Your task to perform on an android device: Open eBay Image 0: 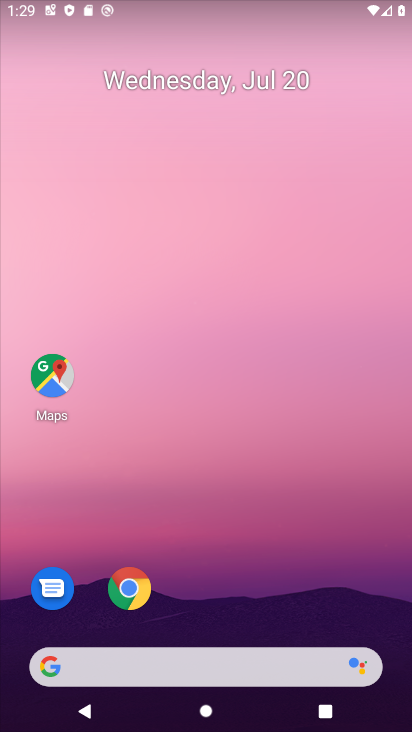
Step 0: drag from (372, 608) to (221, 21)
Your task to perform on an android device: Open eBay Image 1: 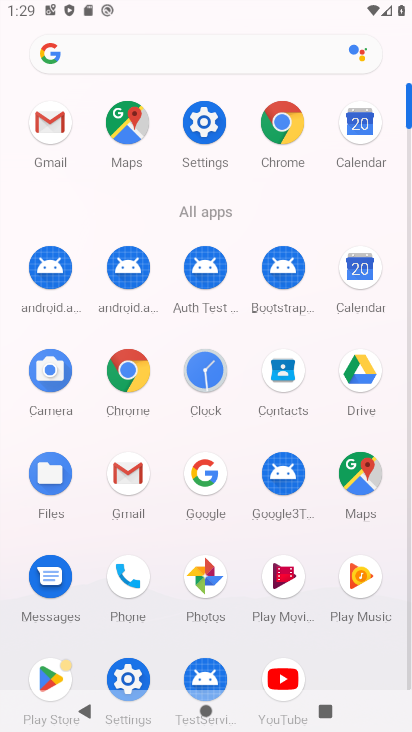
Step 1: click (217, 472)
Your task to perform on an android device: Open eBay Image 2: 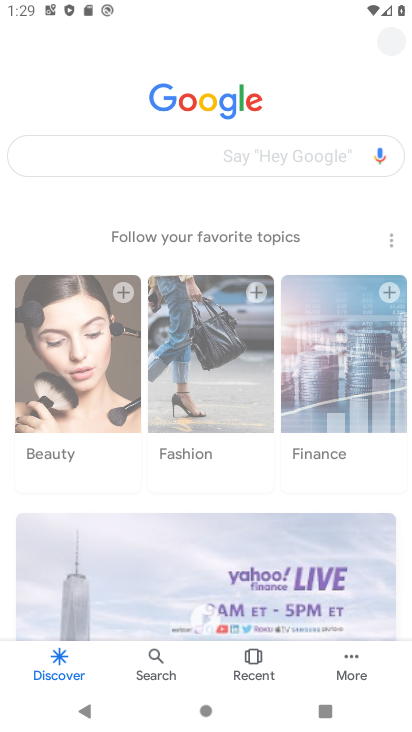
Step 2: click (158, 153)
Your task to perform on an android device: Open eBay Image 3: 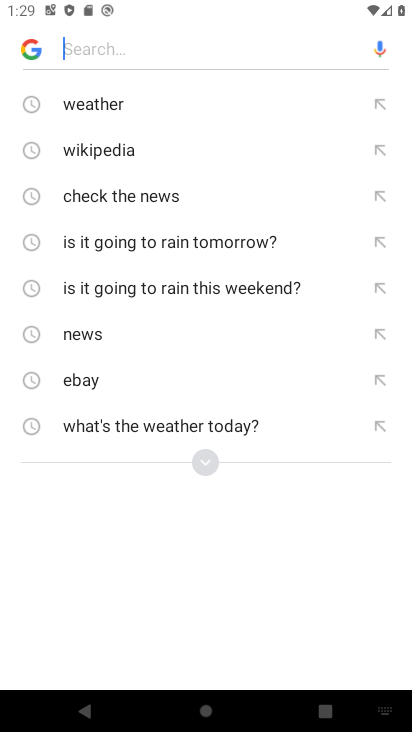
Step 3: click (62, 384)
Your task to perform on an android device: Open eBay Image 4: 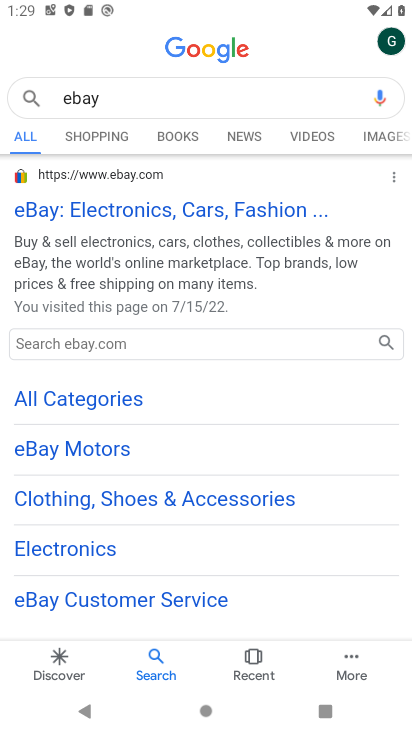
Step 4: task complete